Your task to perform on an android device: empty trash in the gmail app Image 0: 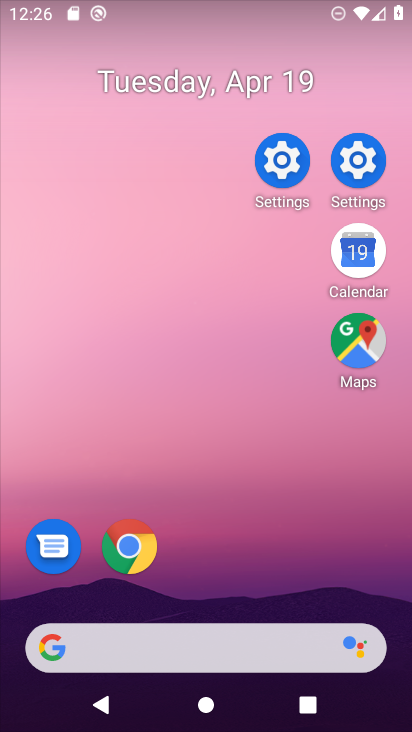
Step 0: click (211, 83)
Your task to perform on an android device: empty trash in the gmail app Image 1: 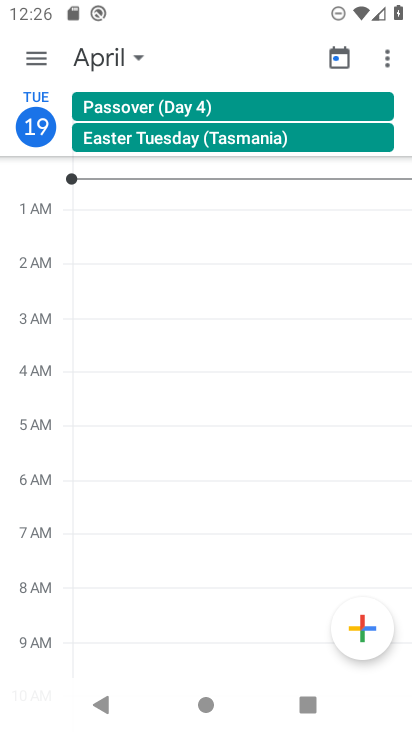
Step 1: press home button
Your task to perform on an android device: empty trash in the gmail app Image 2: 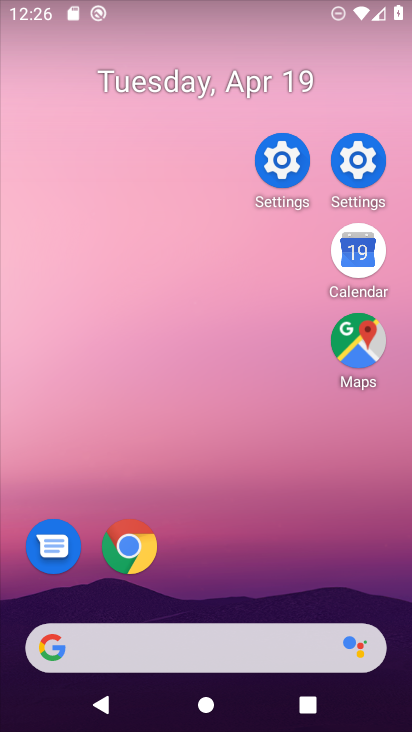
Step 2: drag from (249, 601) to (165, 305)
Your task to perform on an android device: empty trash in the gmail app Image 3: 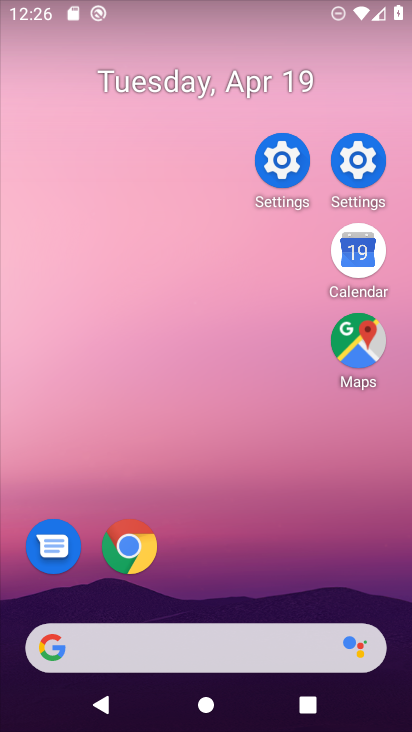
Step 3: click (157, 212)
Your task to perform on an android device: empty trash in the gmail app Image 4: 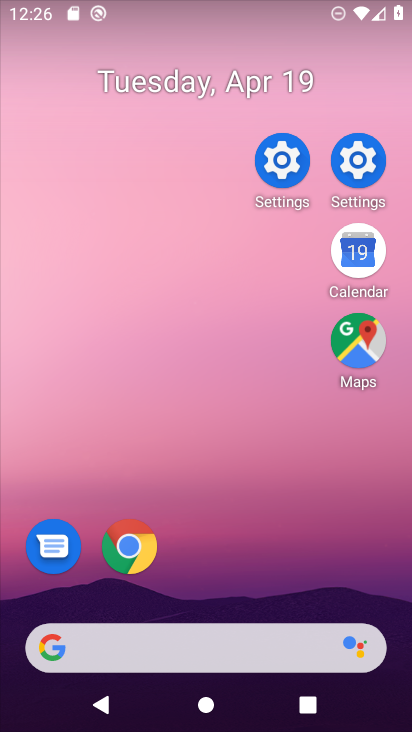
Step 4: drag from (256, 472) to (150, 78)
Your task to perform on an android device: empty trash in the gmail app Image 5: 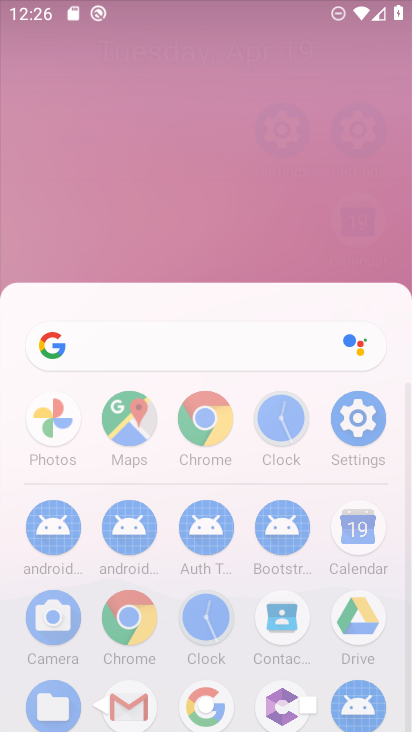
Step 5: drag from (301, 383) to (152, 105)
Your task to perform on an android device: empty trash in the gmail app Image 6: 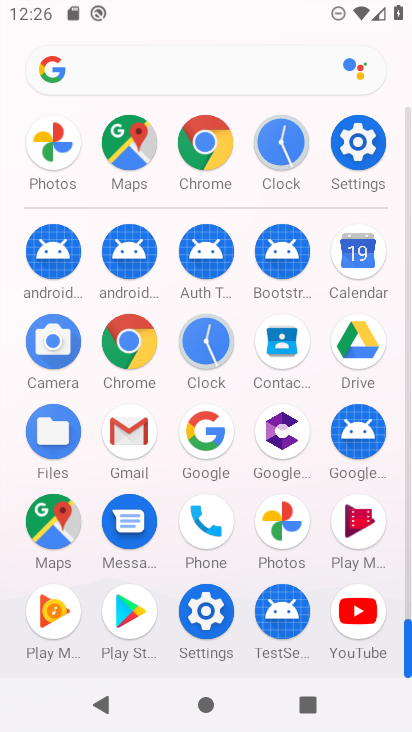
Step 6: click (117, 436)
Your task to perform on an android device: empty trash in the gmail app Image 7: 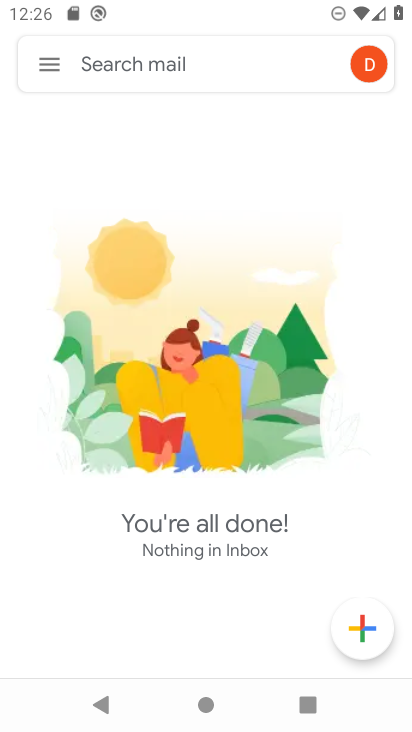
Step 7: click (54, 75)
Your task to perform on an android device: empty trash in the gmail app Image 8: 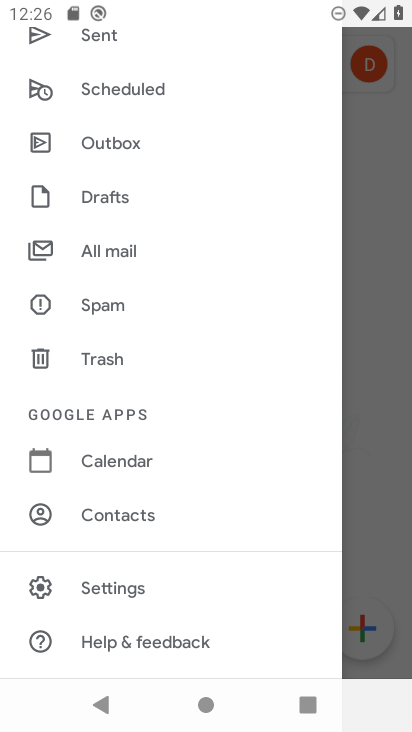
Step 8: click (88, 366)
Your task to perform on an android device: empty trash in the gmail app Image 9: 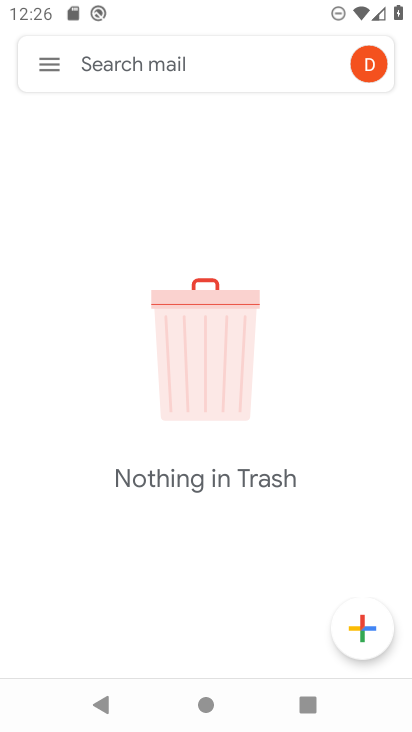
Step 9: task complete